Your task to perform on an android device: Turn on the flashlight Image 0: 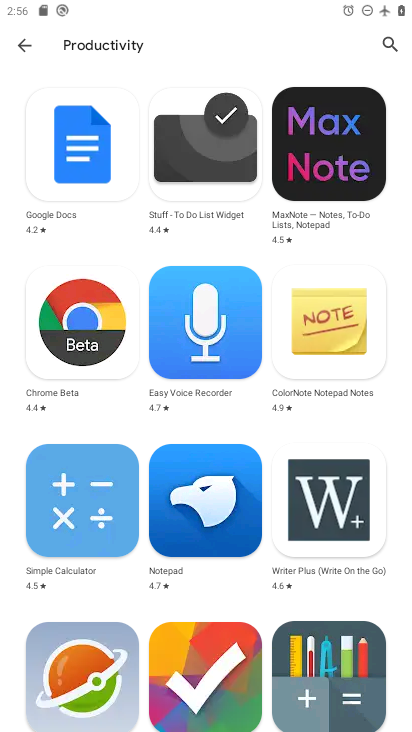
Step 0: press home button
Your task to perform on an android device: Turn on the flashlight Image 1: 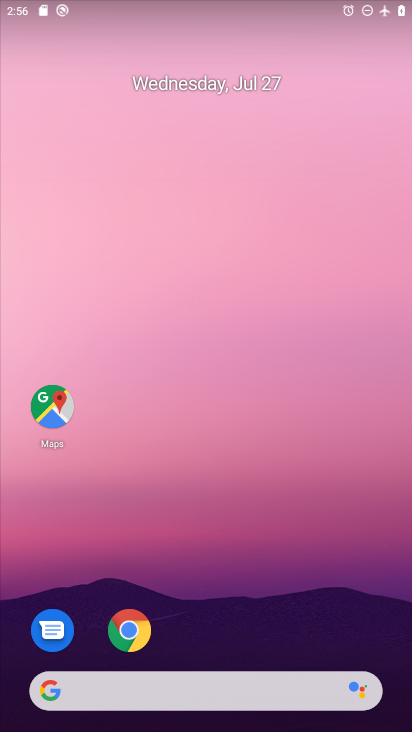
Step 1: drag from (218, 13) to (176, 592)
Your task to perform on an android device: Turn on the flashlight Image 2: 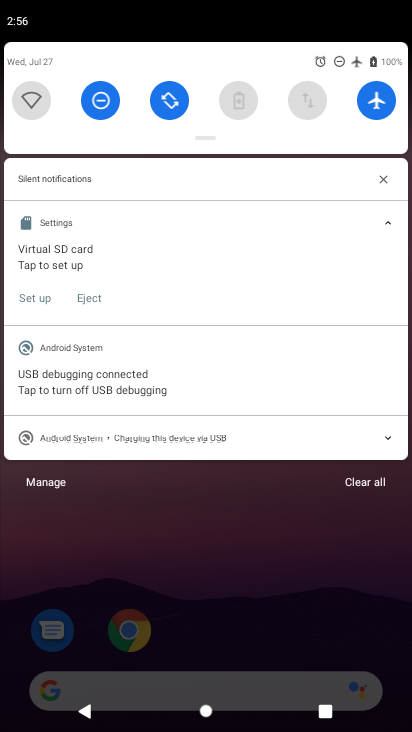
Step 2: drag from (204, 133) to (205, 376)
Your task to perform on an android device: Turn on the flashlight Image 3: 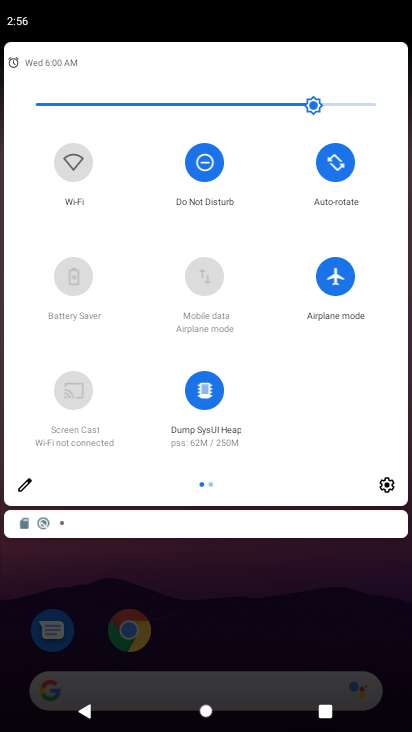
Step 3: click (19, 484)
Your task to perform on an android device: Turn on the flashlight Image 4: 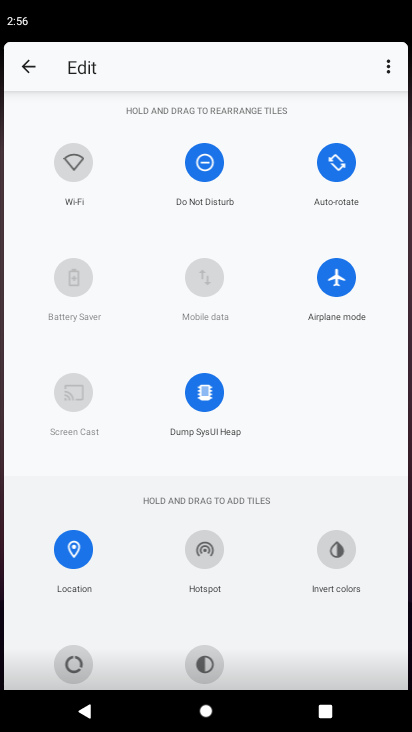
Step 4: task complete